Your task to perform on an android device: add a label to a message in the gmail app Image 0: 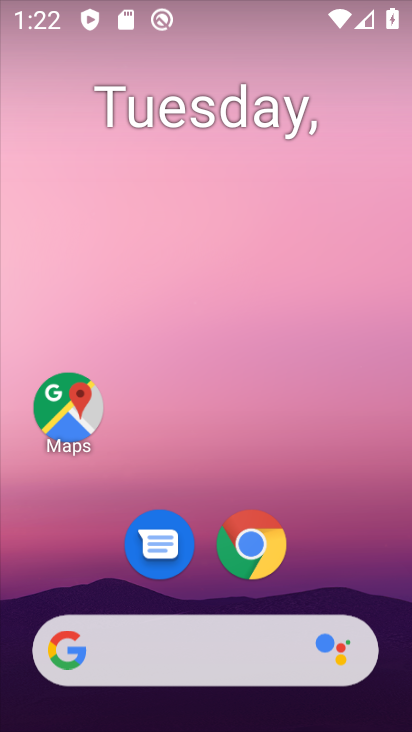
Step 0: drag from (366, 533) to (312, 41)
Your task to perform on an android device: add a label to a message in the gmail app Image 1: 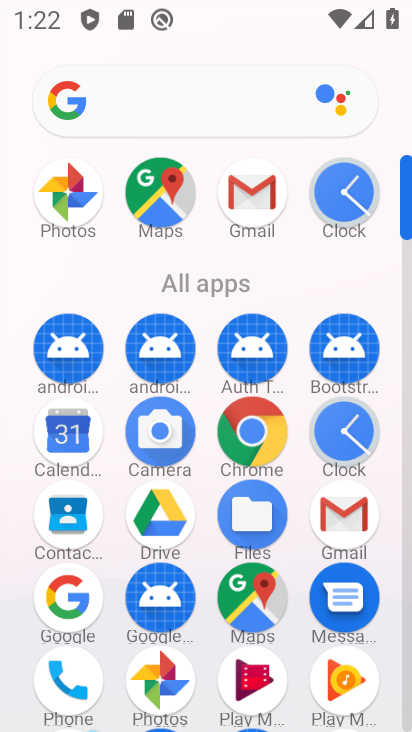
Step 1: click (330, 529)
Your task to perform on an android device: add a label to a message in the gmail app Image 2: 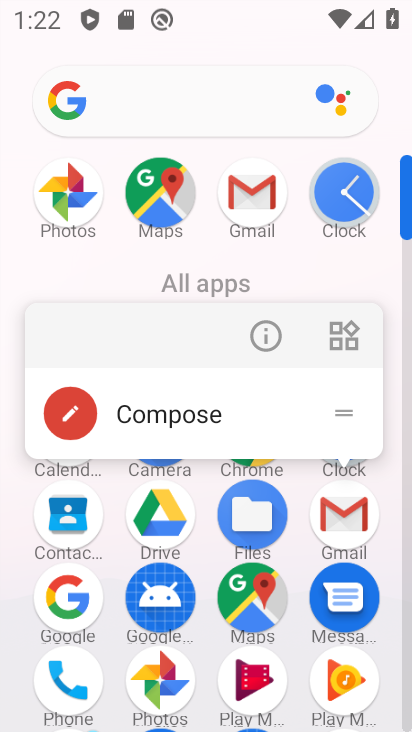
Step 2: click (354, 521)
Your task to perform on an android device: add a label to a message in the gmail app Image 3: 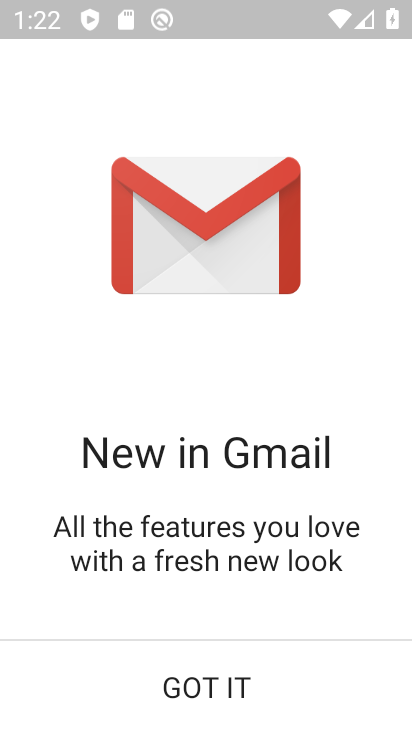
Step 3: click (219, 689)
Your task to perform on an android device: add a label to a message in the gmail app Image 4: 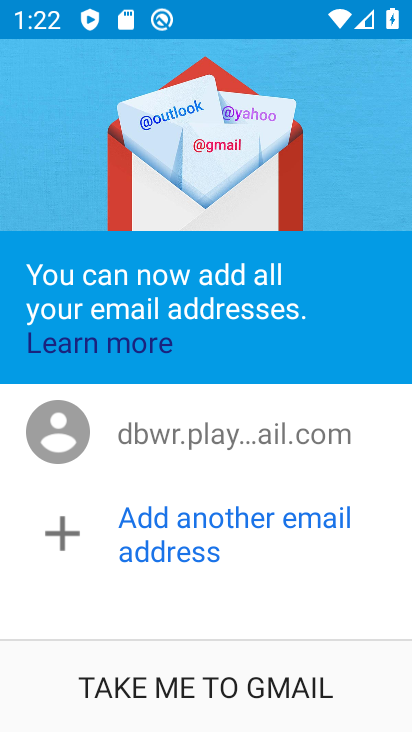
Step 4: click (227, 681)
Your task to perform on an android device: add a label to a message in the gmail app Image 5: 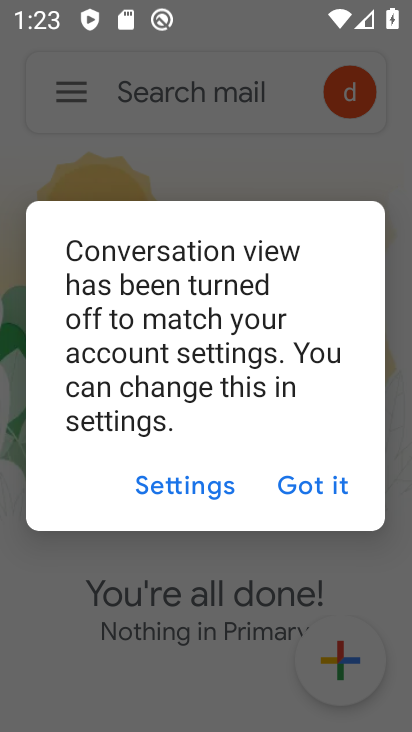
Step 5: click (302, 498)
Your task to perform on an android device: add a label to a message in the gmail app Image 6: 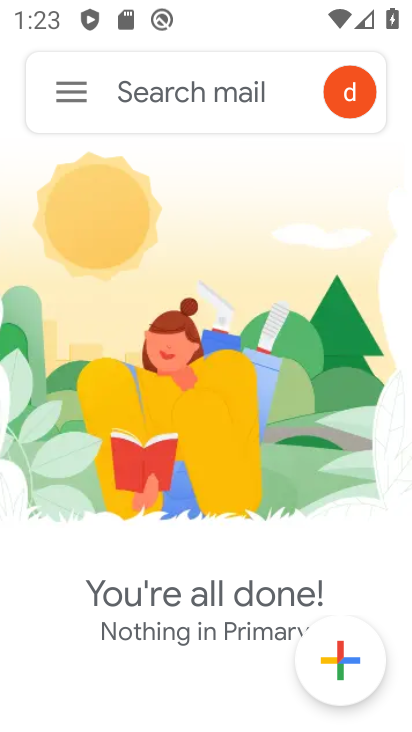
Step 6: click (70, 100)
Your task to perform on an android device: add a label to a message in the gmail app Image 7: 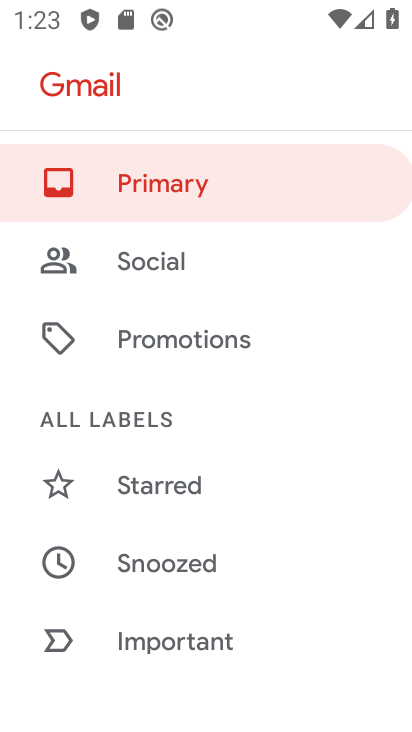
Step 7: drag from (227, 593) to (211, 204)
Your task to perform on an android device: add a label to a message in the gmail app Image 8: 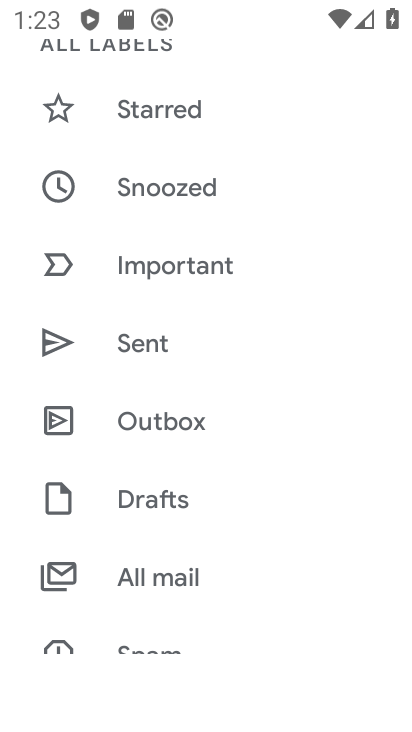
Step 8: drag from (217, 606) to (198, 333)
Your task to perform on an android device: add a label to a message in the gmail app Image 9: 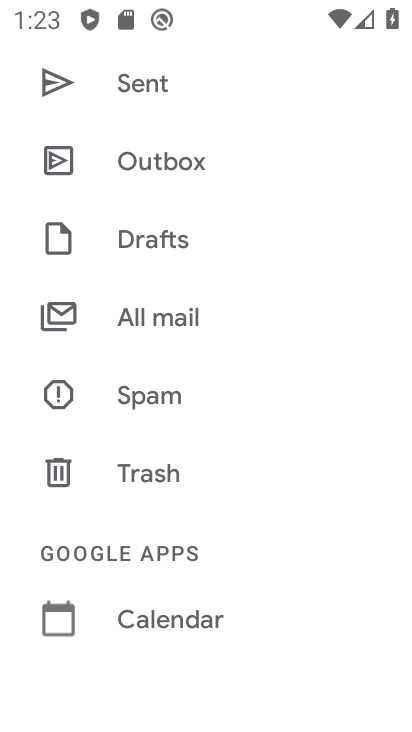
Step 9: click (192, 317)
Your task to perform on an android device: add a label to a message in the gmail app Image 10: 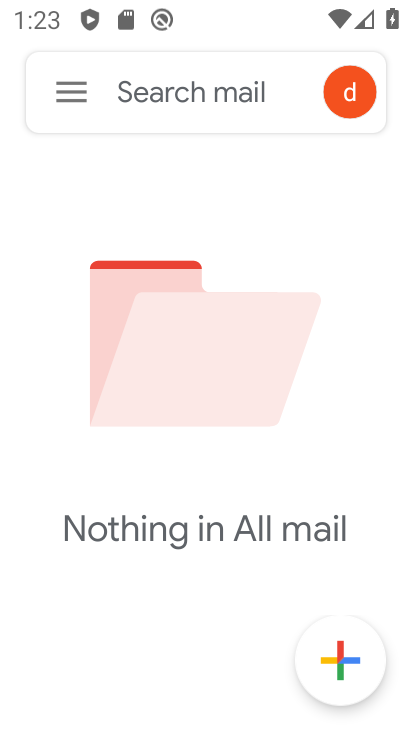
Step 10: task complete